Your task to perform on an android device: Search for Italian restaurants on Maps Image 0: 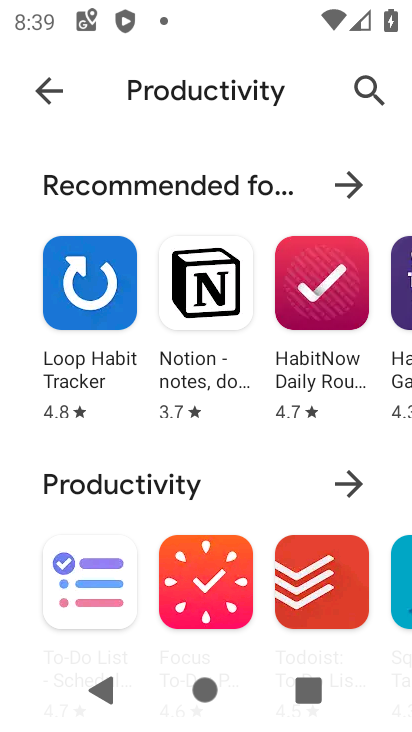
Step 0: press home button
Your task to perform on an android device: Search for Italian restaurants on Maps Image 1: 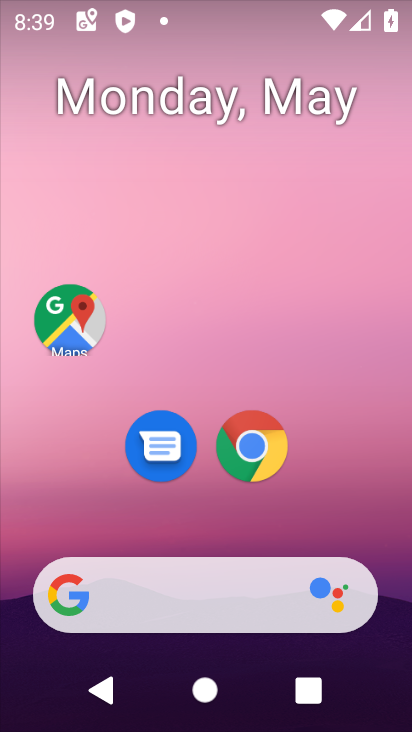
Step 1: click (69, 313)
Your task to perform on an android device: Search for Italian restaurants on Maps Image 2: 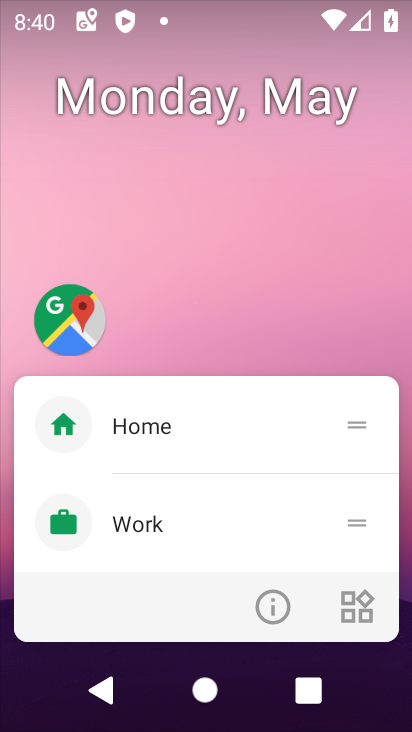
Step 2: click (199, 258)
Your task to perform on an android device: Search for Italian restaurants on Maps Image 3: 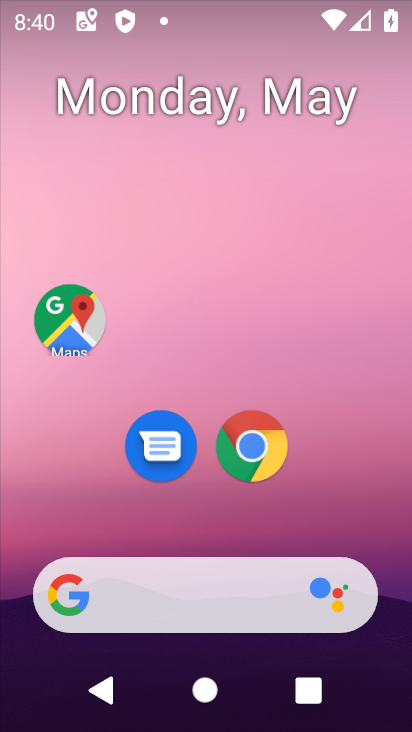
Step 3: click (68, 319)
Your task to perform on an android device: Search for Italian restaurants on Maps Image 4: 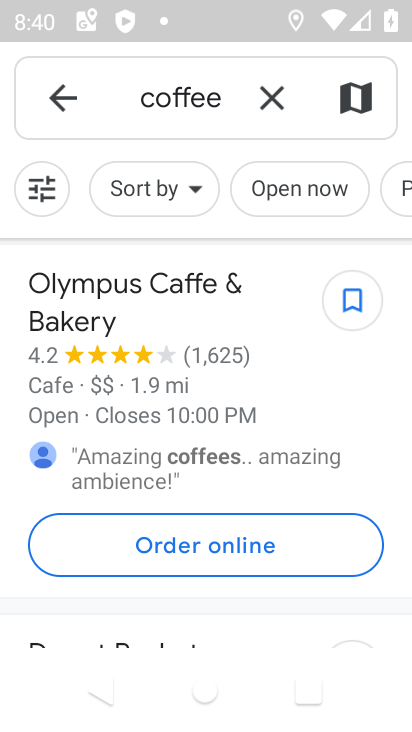
Step 4: click (270, 94)
Your task to perform on an android device: Search for Italian restaurants on Maps Image 5: 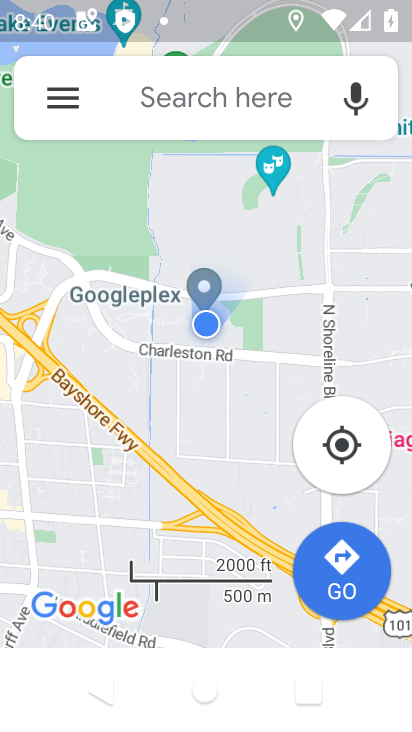
Step 5: click (187, 107)
Your task to perform on an android device: Search for Italian restaurants on Maps Image 6: 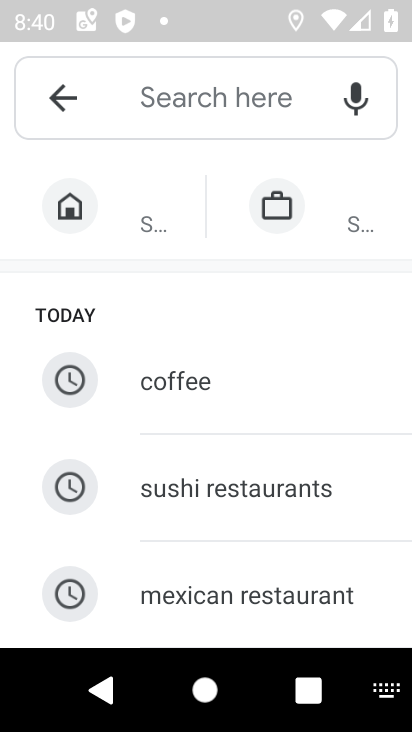
Step 6: type "italian"
Your task to perform on an android device: Search for Italian restaurants on Maps Image 7: 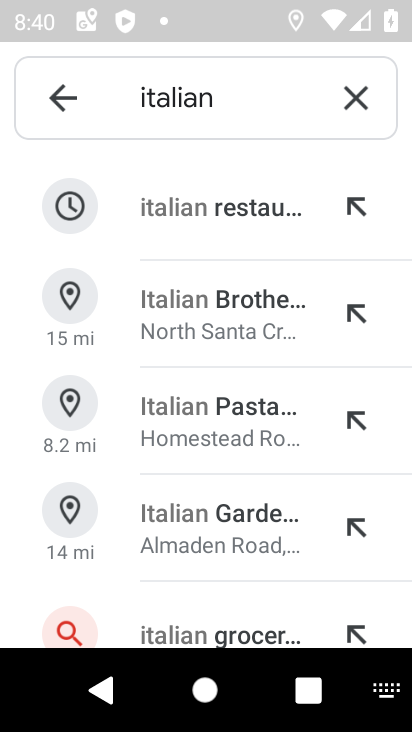
Step 7: click (228, 224)
Your task to perform on an android device: Search for Italian restaurants on Maps Image 8: 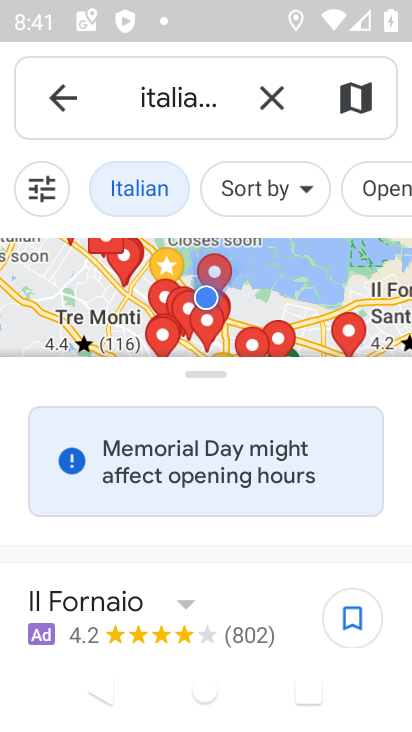
Step 8: task complete